Your task to perform on an android device: turn on showing notifications on the lock screen Image 0: 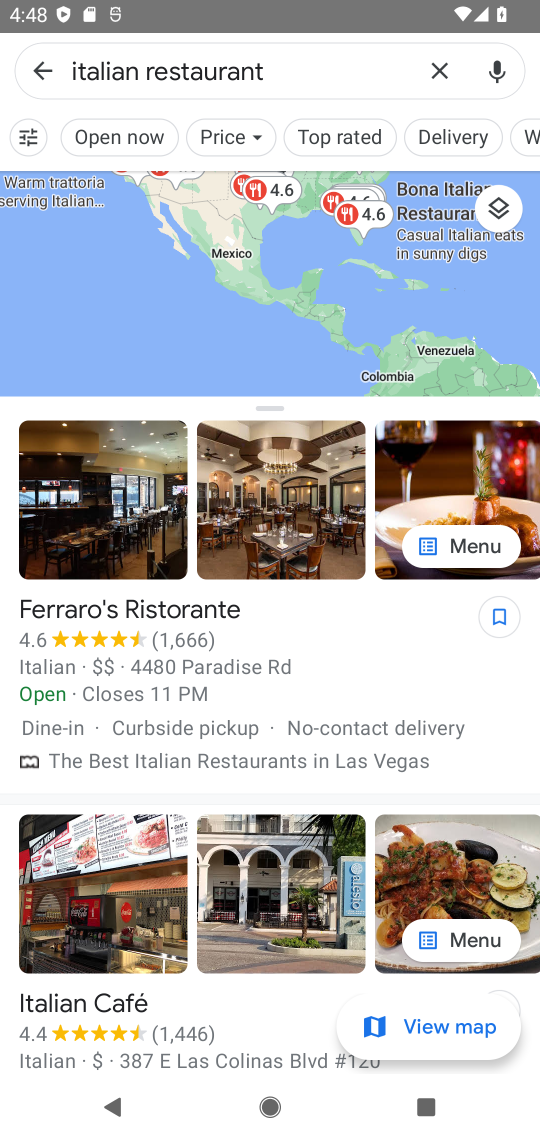
Step 0: press home button
Your task to perform on an android device: turn on showing notifications on the lock screen Image 1: 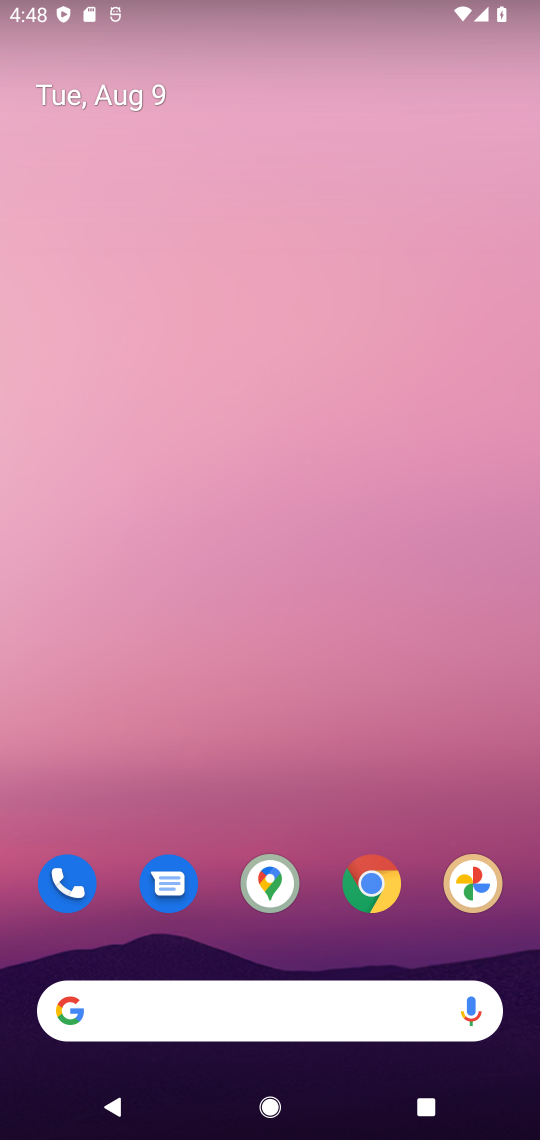
Step 1: drag from (247, 799) to (200, 317)
Your task to perform on an android device: turn on showing notifications on the lock screen Image 2: 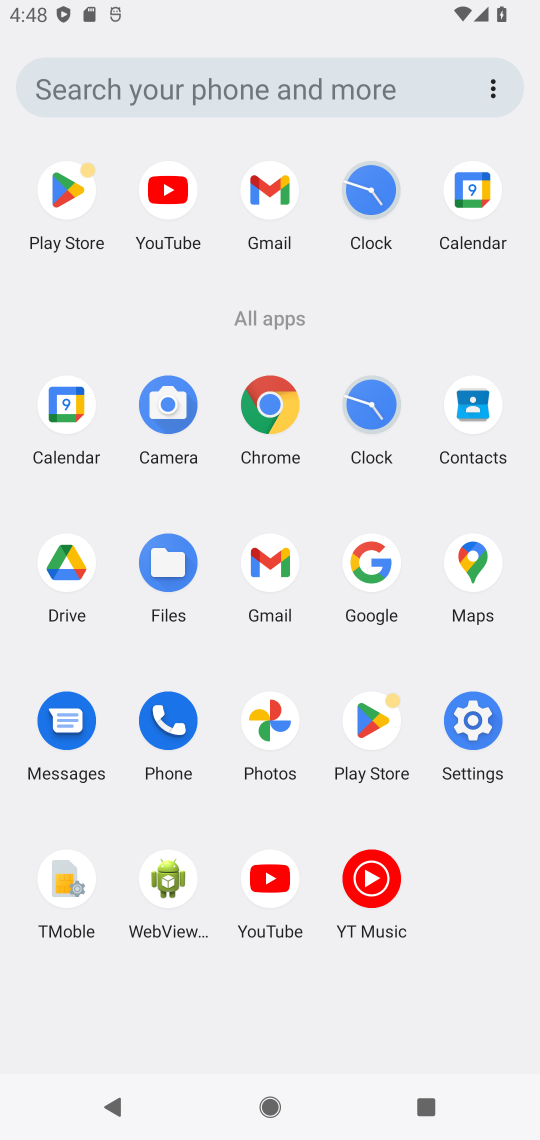
Step 2: click (467, 741)
Your task to perform on an android device: turn on showing notifications on the lock screen Image 3: 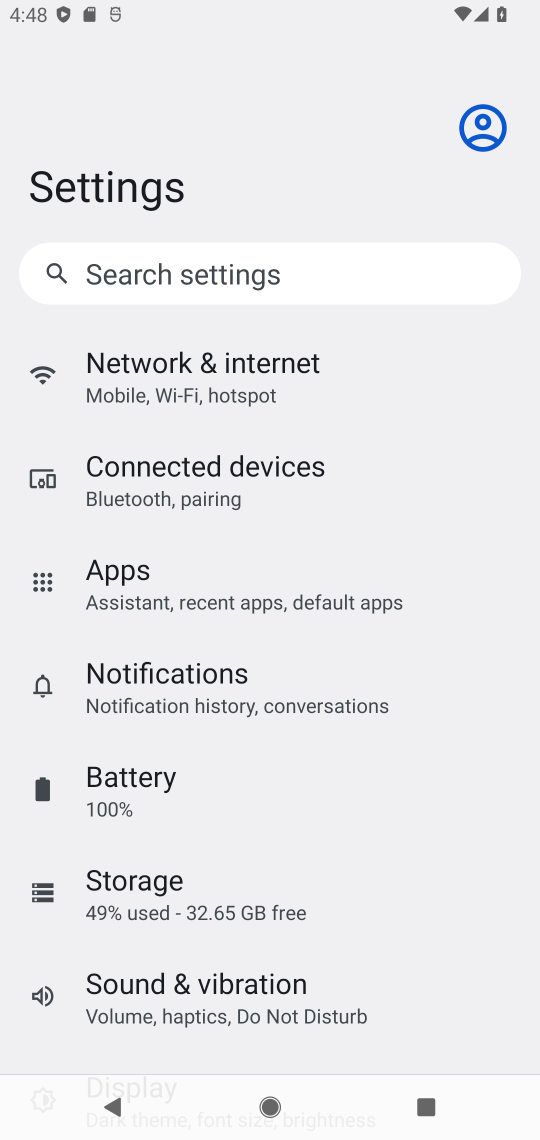
Step 3: click (289, 672)
Your task to perform on an android device: turn on showing notifications on the lock screen Image 4: 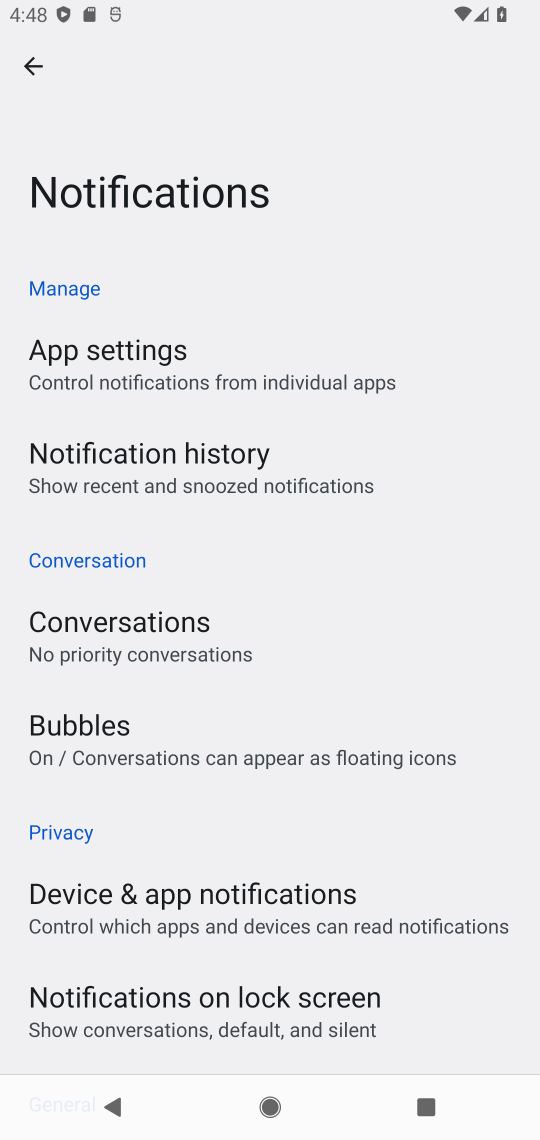
Step 4: drag from (232, 502) to (232, 424)
Your task to perform on an android device: turn on showing notifications on the lock screen Image 5: 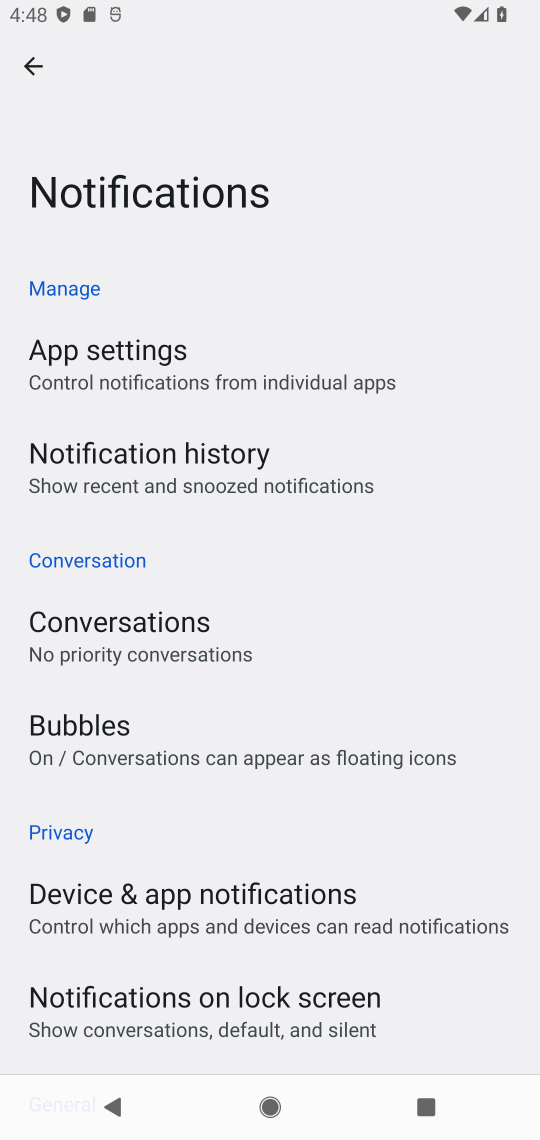
Step 5: drag from (262, 836) to (290, 643)
Your task to perform on an android device: turn on showing notifications on the lock screen Image 6: 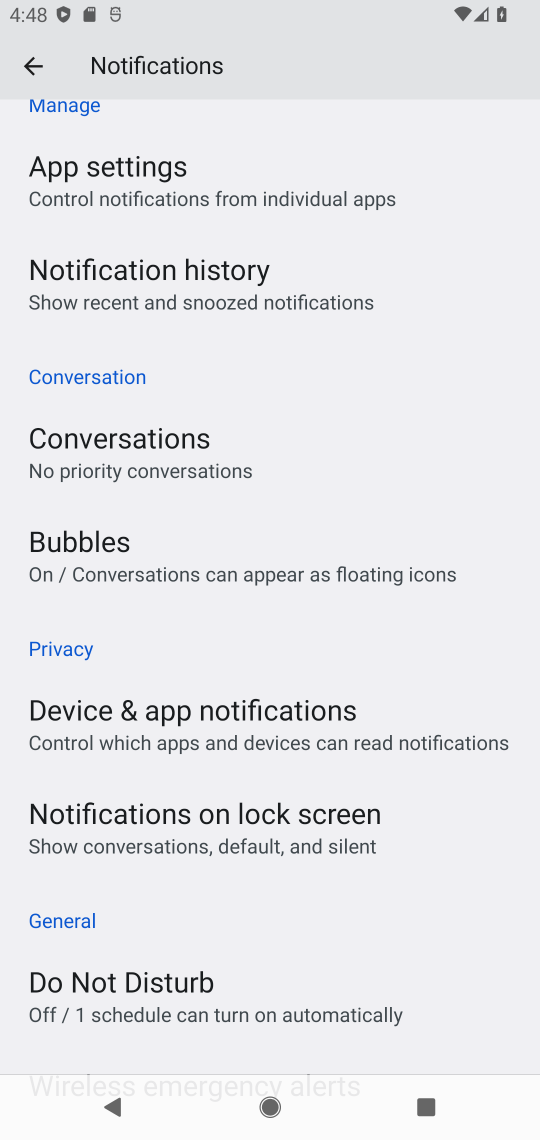
Step 6: click (277, 762)
Your task to perform on an android device: turn on showing notifications on the lock screen Image 7: 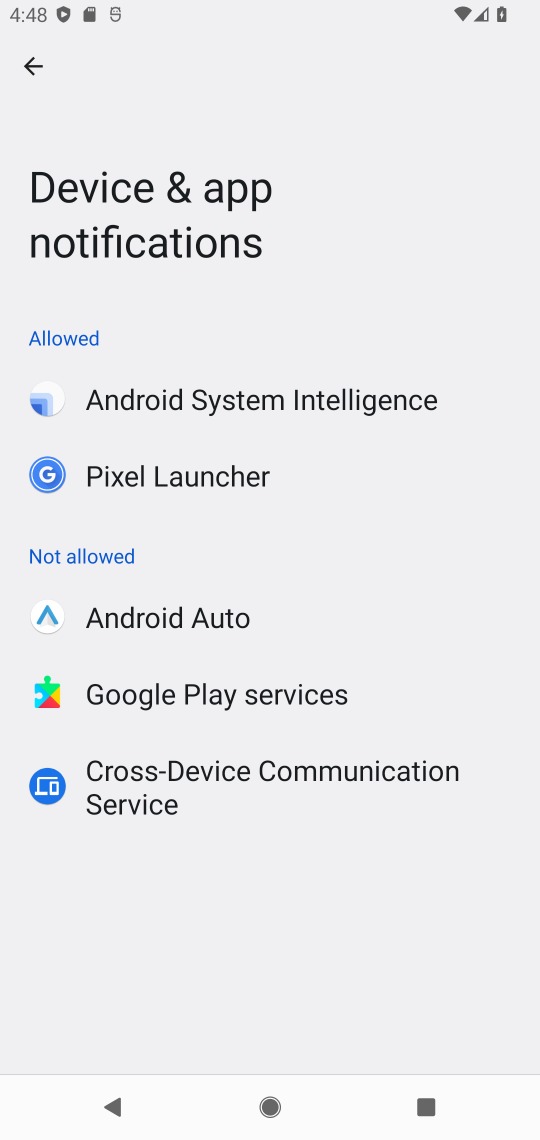
Step 7: click (30, 75)
Your task to perform on an android device: turn on showing notifications on the lock screen Image 8: 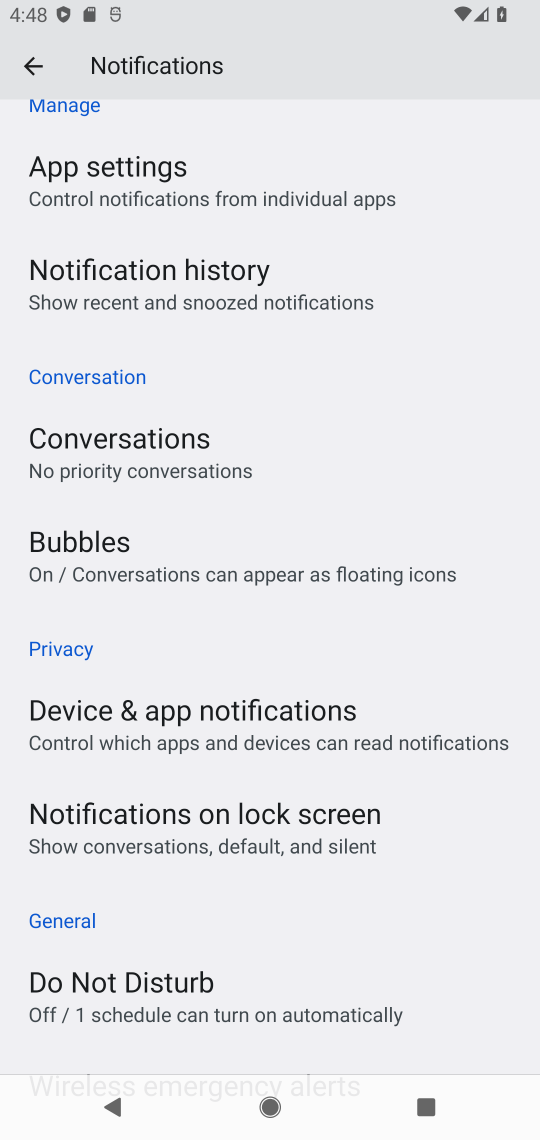
Step 8: click (231, 829)
Your task to perform on an android device: turn on showing notifications on the lock screen Image 9: 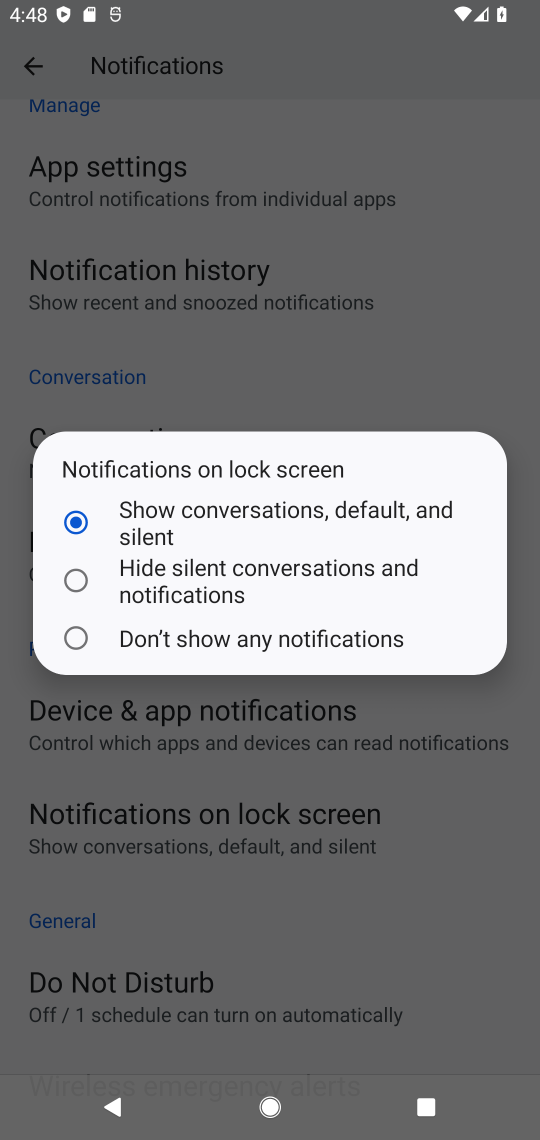
Step 9: task complete